Your task to perform on an android device: Go to Wikipedia Image 0: 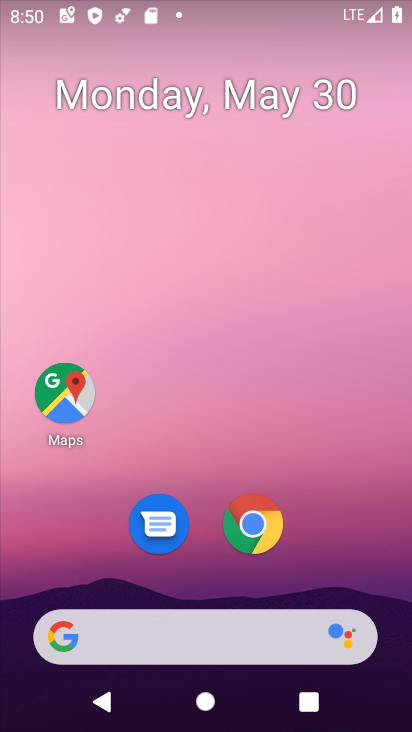
Step 0: drag from (210, 455) to (245, 3)
Your task to perform on an android device: Go to Wikipedia Image 1: 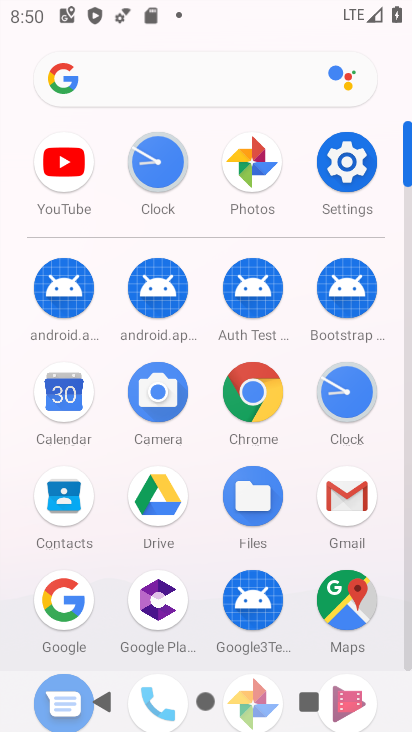
Step 1: click (253, 387)
Your task to perform on an android device: Go to Wikipedia Image 2: 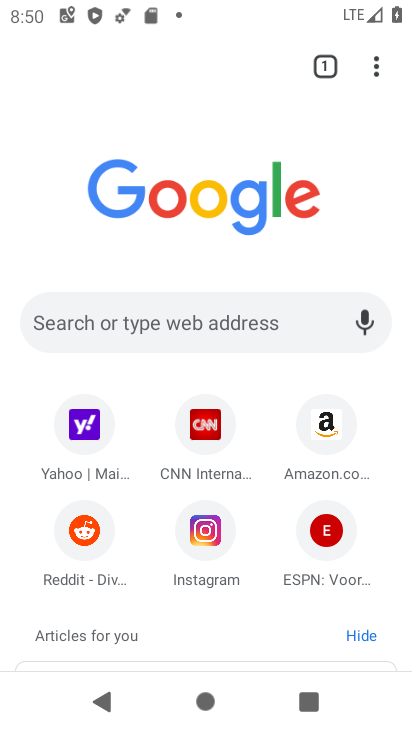
Step 2: drag from (268, 530) to (296, 328)
Your task to perform on an android device: Go to Wikipedia Image 3: 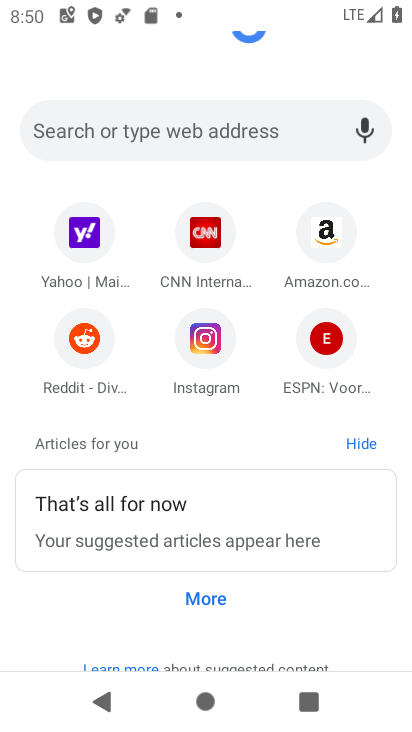
Step 3: click (253, 130)
Your task to perform on an android device: Go to Wikipedia Image 4: 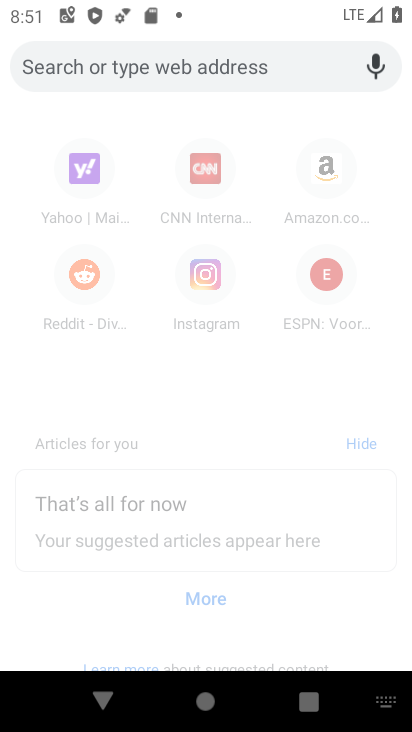
Step 4: type "Wikipedia"
Your task to perform on an android device: Go to Wikipedia Image 5: 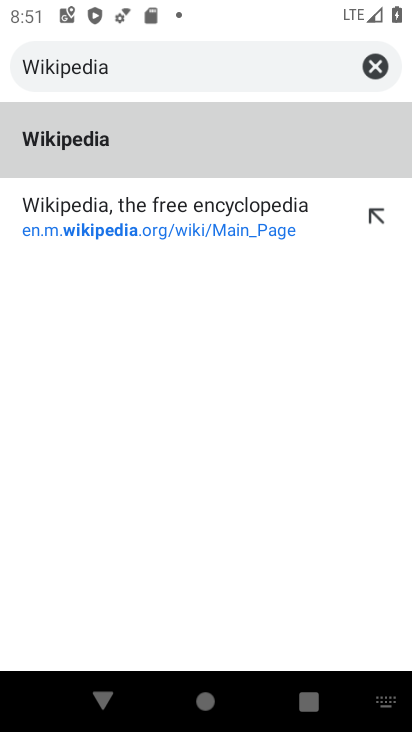
Step 5: click (111, 200)
Your task to perform on an android device: Go to Wikipedia Image 6: 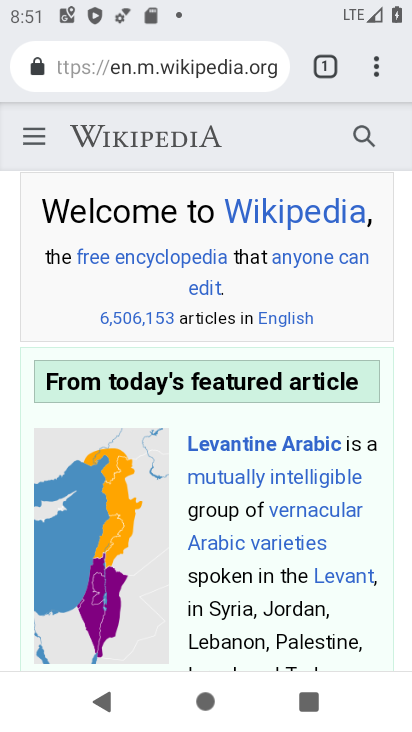
Step 6: task complete